Your task to perform on an android device: What's the weather today? Image 0: 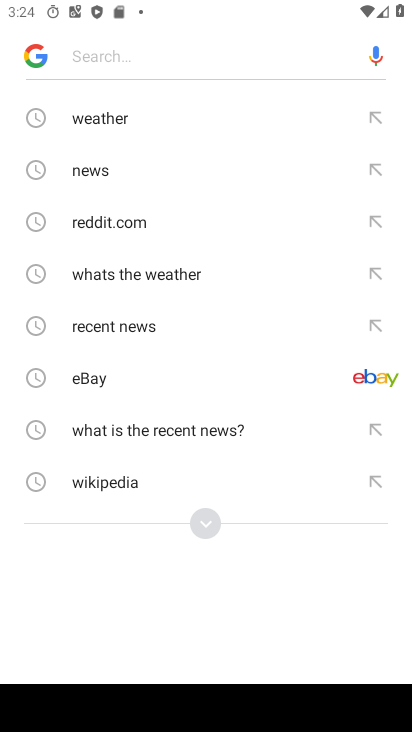
Step 0: press home button
Your task to perform on an android device: What's the weather today? Image 1: 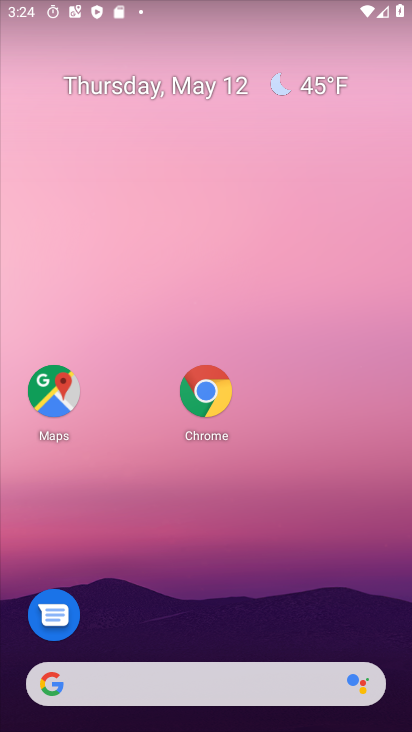
Step 1: drag from (215, 580) to (255, 134)
Your task to perform on an android device: What's the weather today? Image 2: 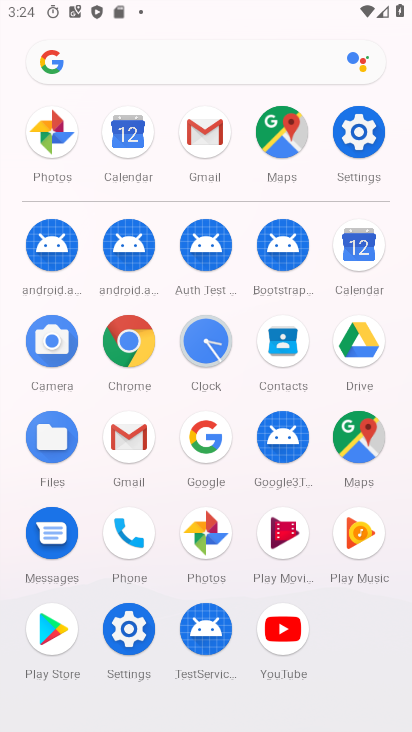
Step 2: click (207, 438)
Your task to perform on an android device: What's the weather today? Image 3: 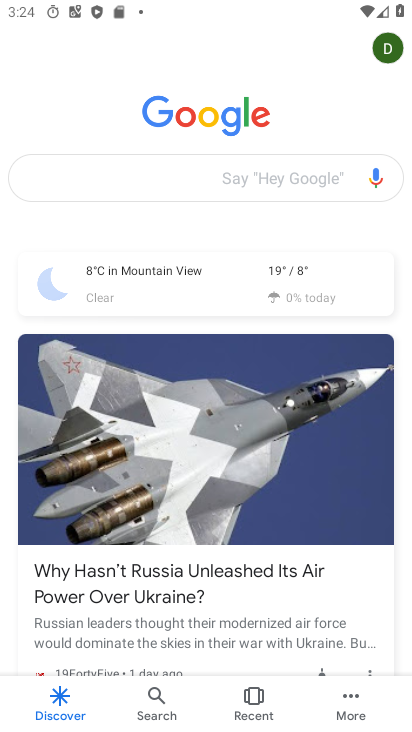
Step 3: click (160, 168)
Your task to perform on an android device: What's the weather today? Image 4: 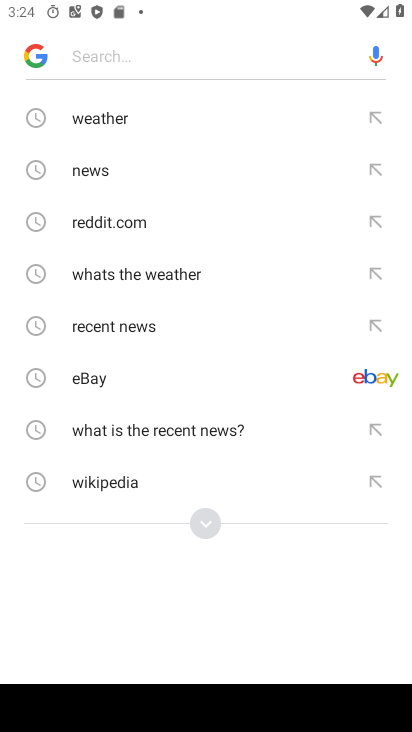
Step 4: click (137, 123)
Your task to perform on an android device: What's the weather today? Image 5: 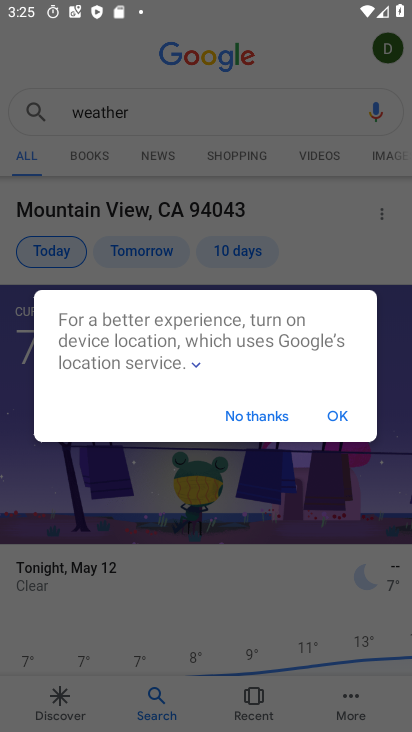
Step 5: click (281, 414)
Your task to perform on an android device: What's the weather today? Image 6: 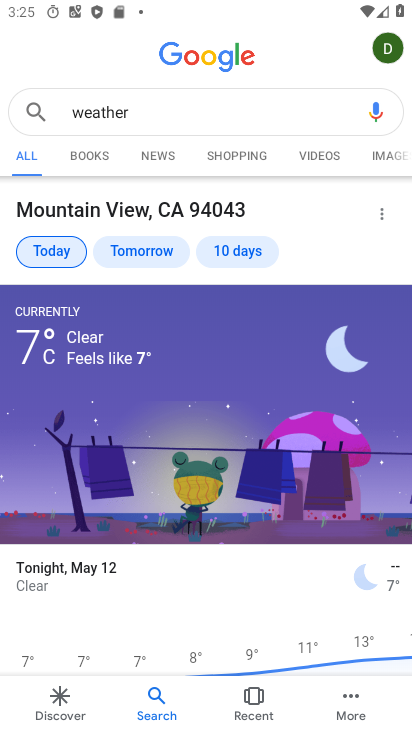
Step 6: task complete